Your task to perform on an android device: Show me recent news Image 0: 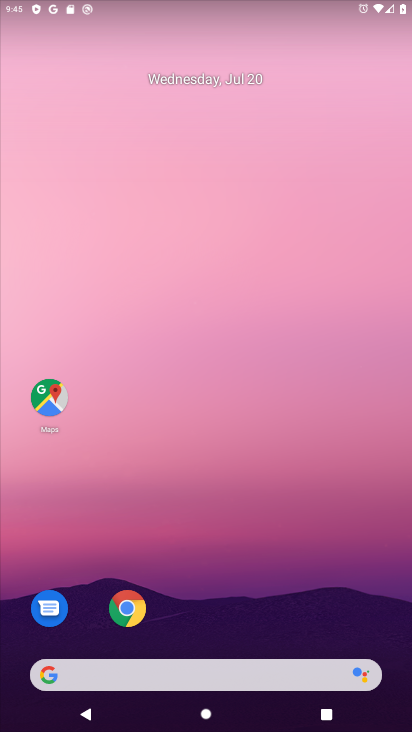
Step 0: press home button
Your task to perform on an android device: Show me recent news Image 1: 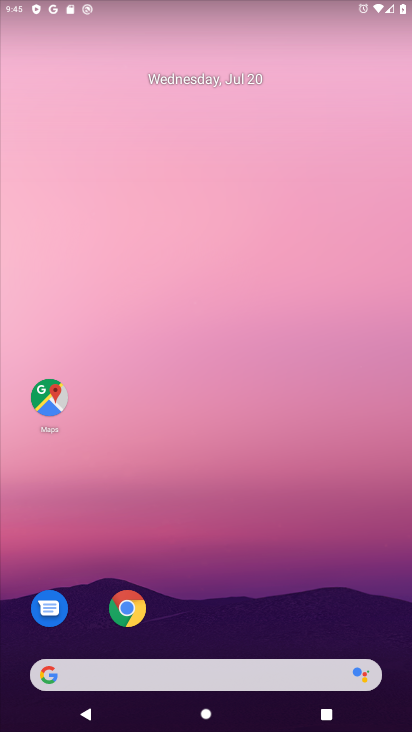
Step 1: task complete